Your task to perform on an android device: read, delete, or share a saved page in the chrome app Image 0: 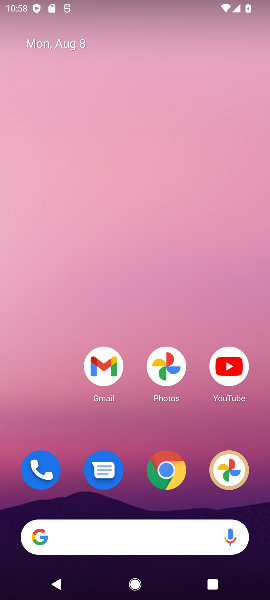
Step 0: click (172, 475)
Your task to perform on an android device: read, delete, or share a saved page in the chrome app Image 1: 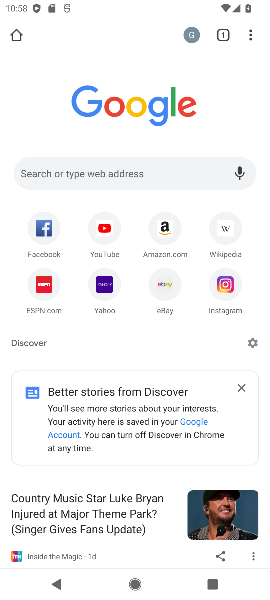
Step 1: click (251, 33)
Your task to perform on an android device: read, delete, or share a saved page in the chrome app Image 2: 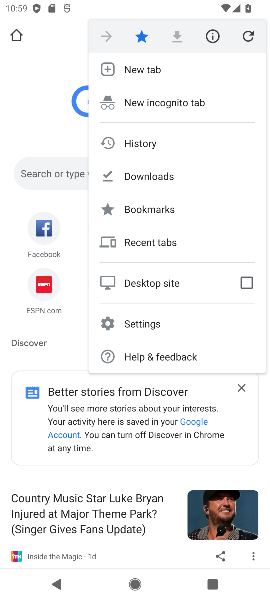
Step 2: task complete